Your task to perform on an android device: see creations saved in the google photos Image 0: 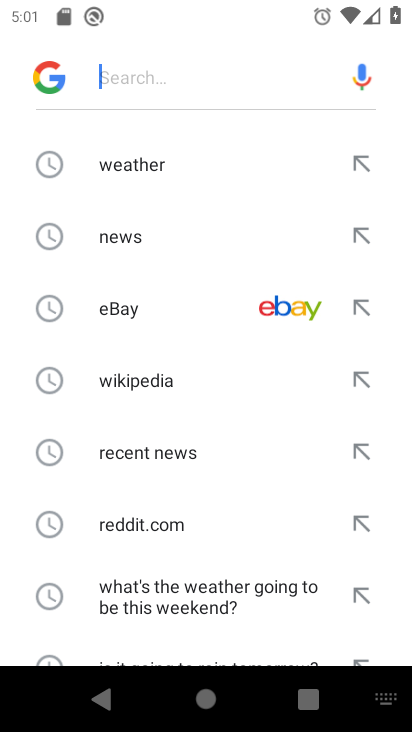
Step 0: press home button
Your task to perform on an android device: see creations saved in the google photos Image 1: 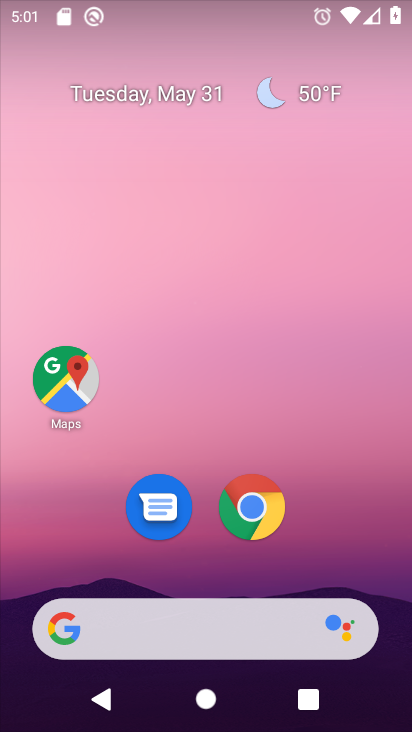
Step 1: drag from (330, 431) to (292, 14)
Your task to perform on an android device: see creations saved in the google photos Image 2: 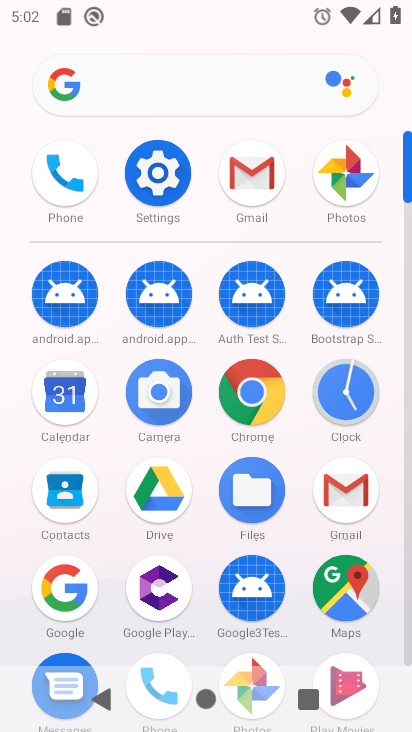
Step 2: click (330, 170)
Your task to perform on an android device: see creations saved in the google photos Image 3: 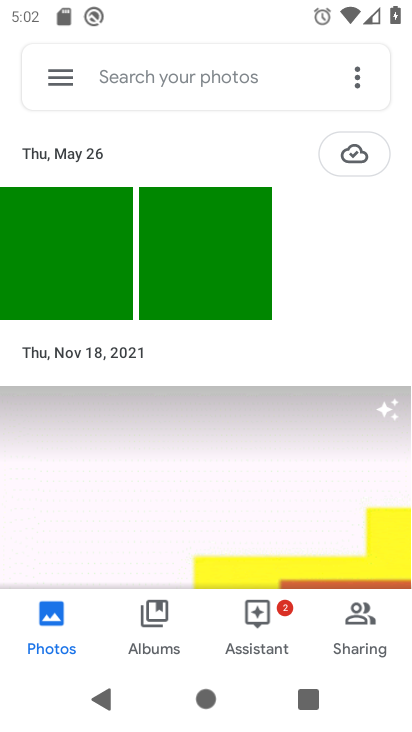
Step 3: click (196, 67)
Your task to perform on an android device: see creations saved in the google photos Image 4: 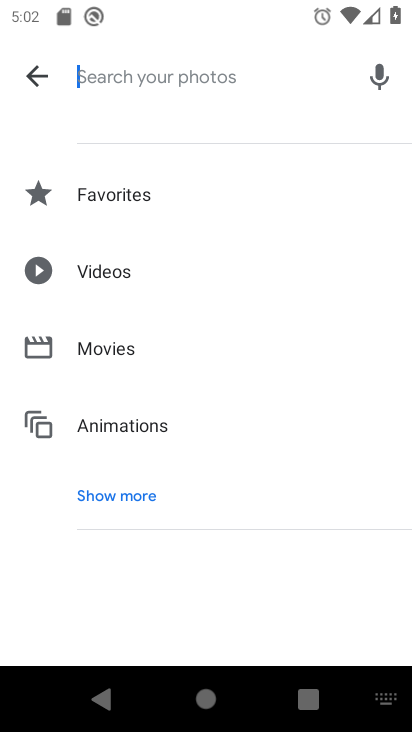
Step 4: click (119, 489)
Your task to perform on an android device: see creations saved in the google photos Image 5: 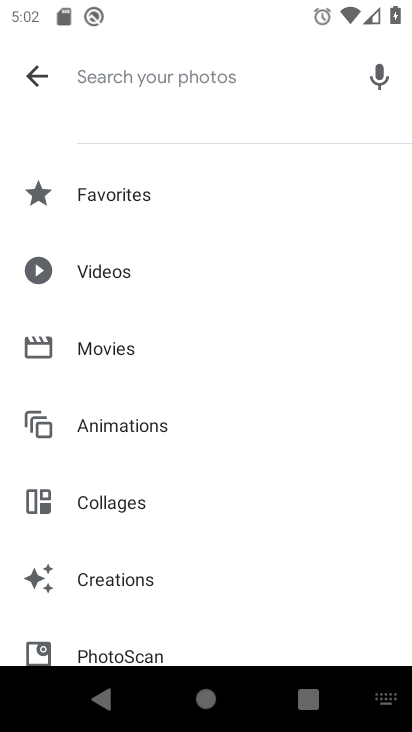
Step 5: click (122, 568)
Your task to perform on an android device: see creations saved in the google photos Image 6: 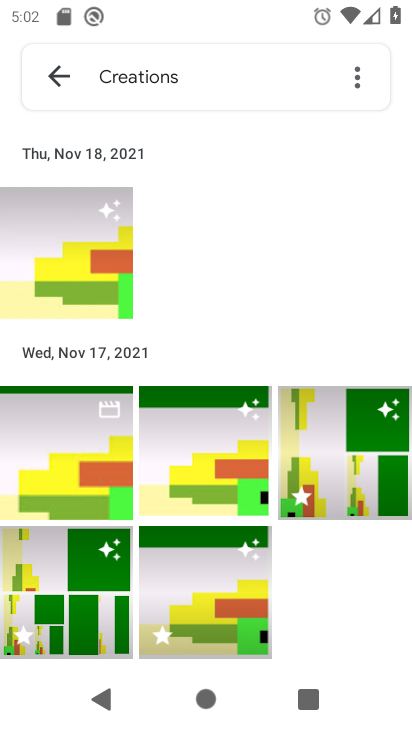
Step 6: task complete